Your task to perform on an android device: turn off picture-in-picture Image 0: 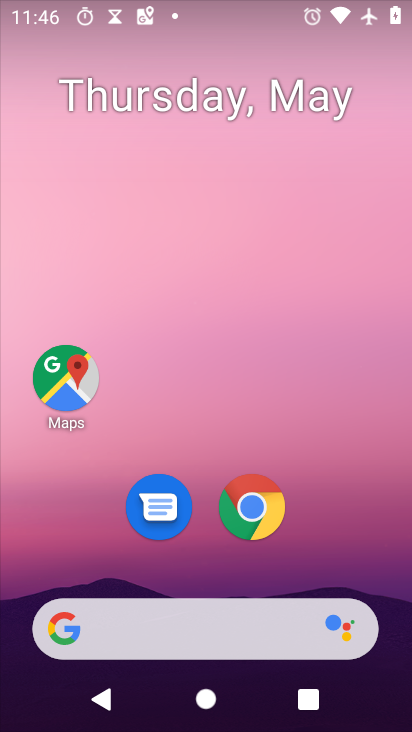
Step 0: drag from (350, 547) to (298, 12)
Your task to perform on an android device: turn off picture-in-picture Image 1: 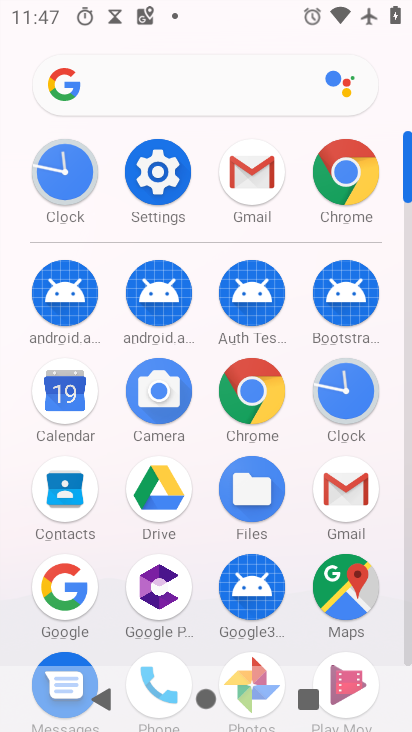
Step 1: drag from (19, 607) to (21, 263)
Your task to perform on an android device: turn off picture-in-picture Image 2: 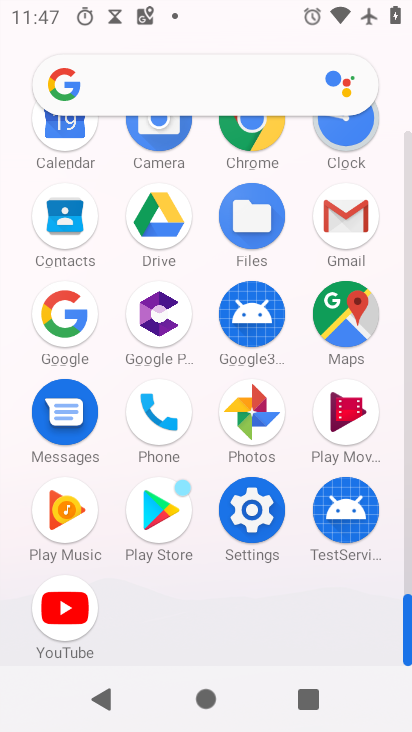
Step 2: click (252, 508)
Your task to perform on an android device: turn off picture-in-picture Image 3: 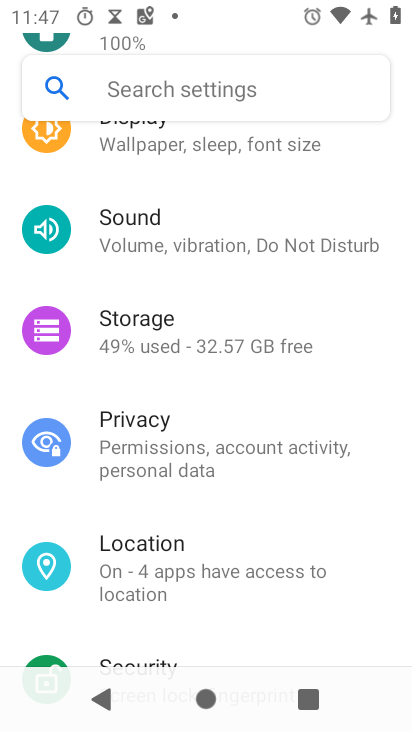
Step 3: drag from (251, 205) to (231, 635)
Your task to perform on an android device: turn off picture-in-picture Image 4: 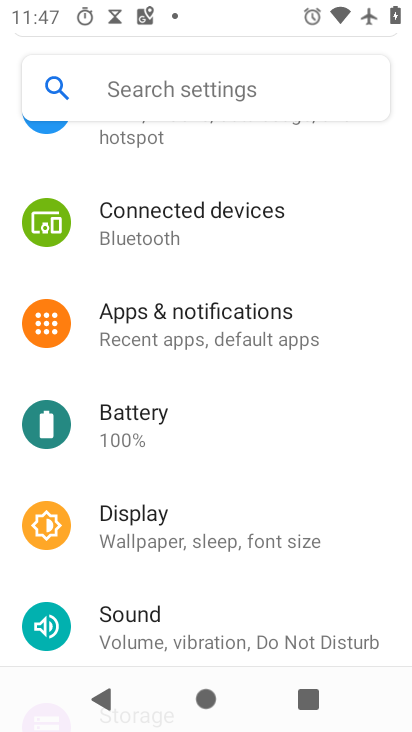
Step 4: click (213, 307)
Your task to perform on an android device: turn off picture-in-picture Image 5: 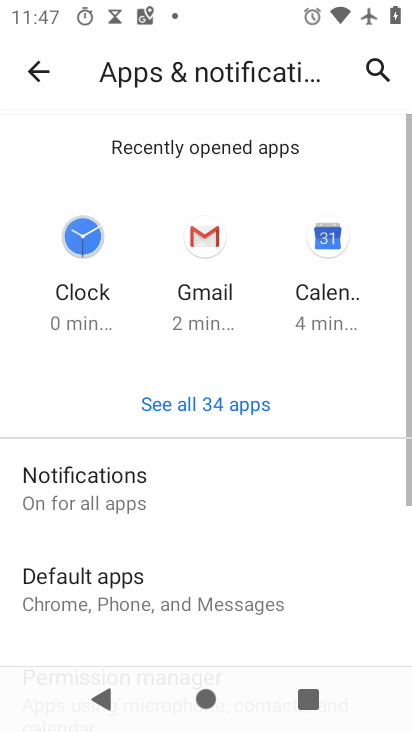
Step 5: click (169, 476)
Your task to perform on an android device: turn off picture-in-picture Image 6: 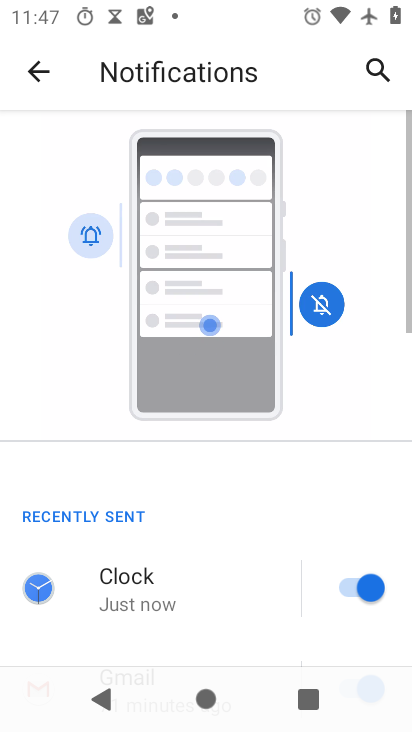
Step 6: drag from (169, 554) to (218, 139)
Your task to perform on an android device: turn off picture-in-picture Image 7: 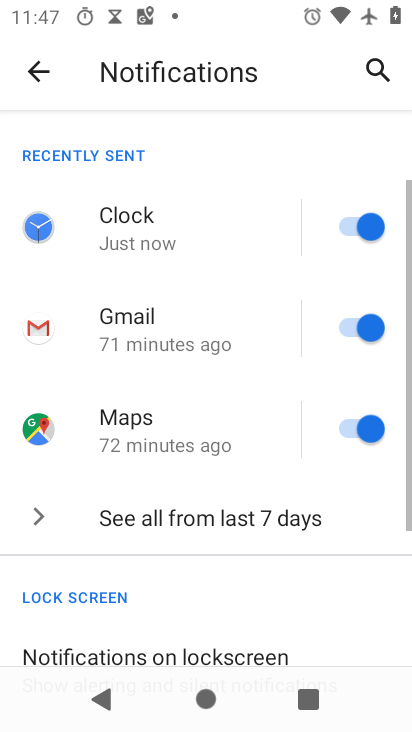
Step 7: drag from (171, 551) to (214, 115)
Your task to perform on an android device: turn off picture-in-picture Image 8: 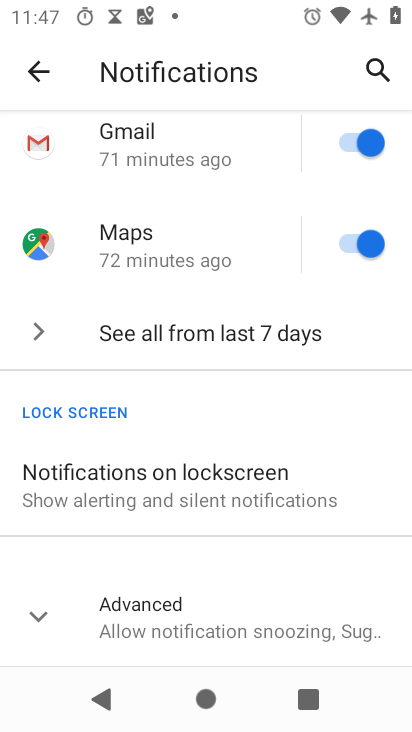
Step 8: click (49, 595)
Your task to perform on an android device: turn off picture-in-picture Image 9: 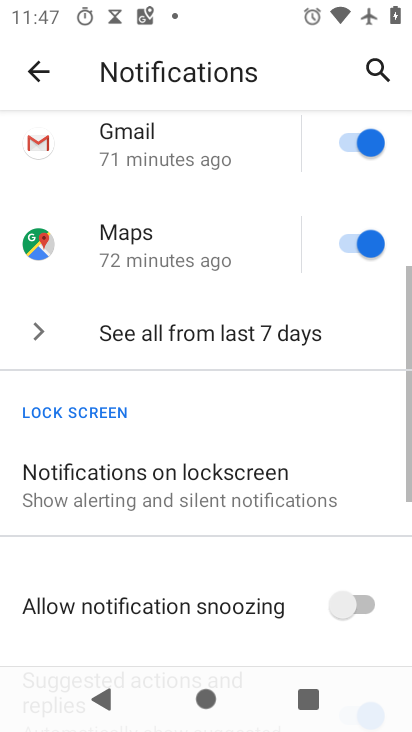
Step 9: drag from (199, 606) to (237, 87)
Your task to perform on an android device: turn off picture-in-picture Image 10: 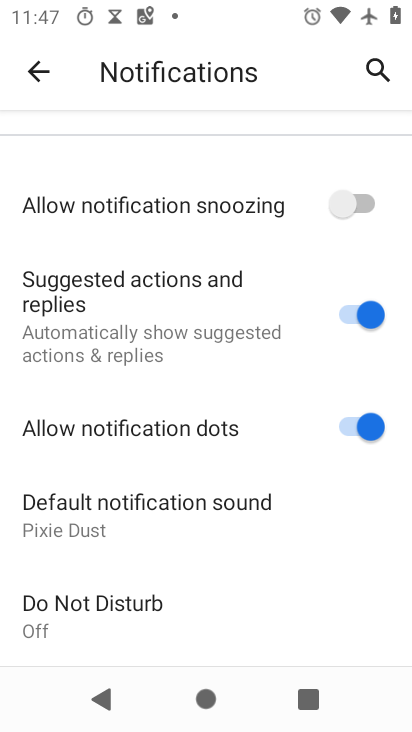
Step 10: click (35, 62)
Your task to perform on an android device: turn off picture-in-picture Image 11: 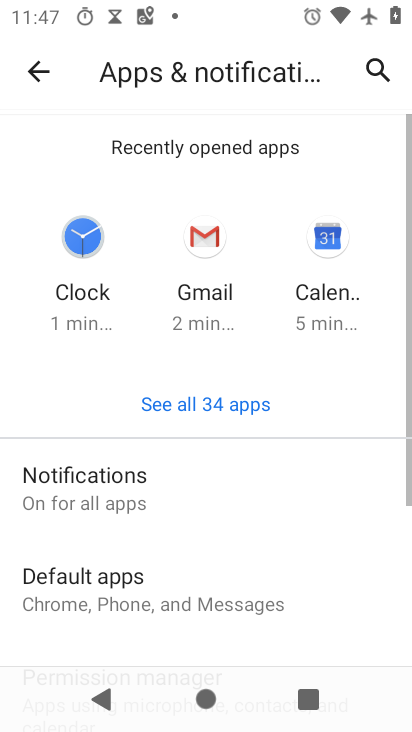
Step 11: drag from (202, 557) to (242, 142)
Your task to perform on an android device: turn off picture-in-picture Image 12: 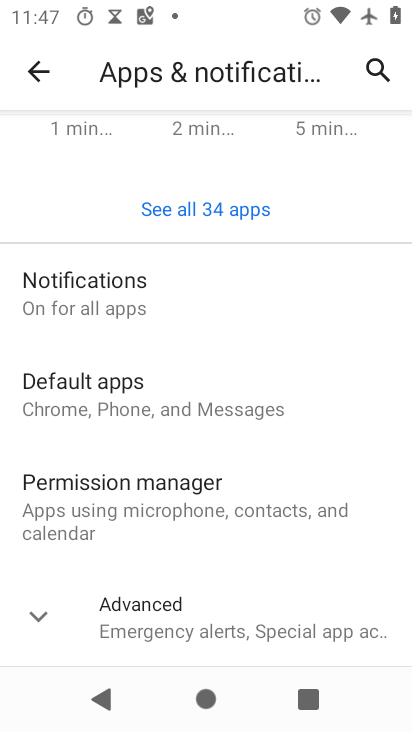
Step 12: click (162, 623)
Your task to perform on an android device: turn off picture-in-picture Image 13: 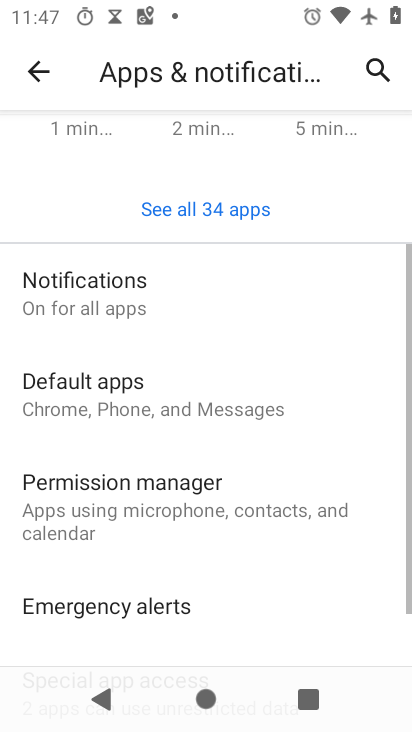
Step 13: drag from (238, 569) to (237, 202)
Your task to perform on an android device: turn off picture-in-picture Image 14: 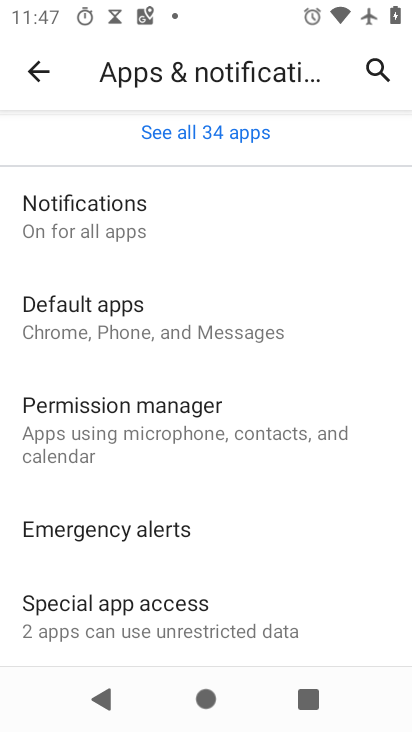
Step 14: click (126, 607)
Your task to perform on an android device: turn off picture-in-picture Image 15: 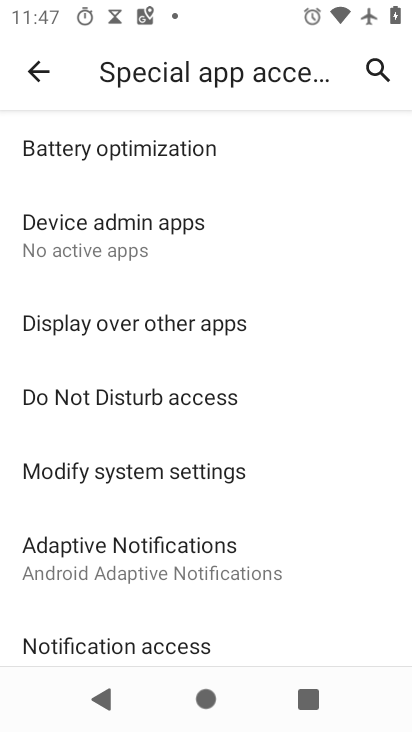
Step 15: drag from (188, 571) to (246, 190)
Your task to perform on an android device: turn off picture-in-picture Image 16: 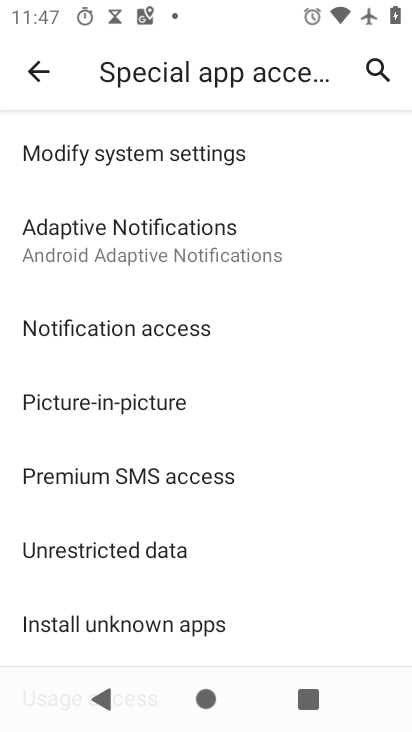
Step 16: click (149, 411)
Your task to perform on an android device: turn off picture-in-picture Image 17: 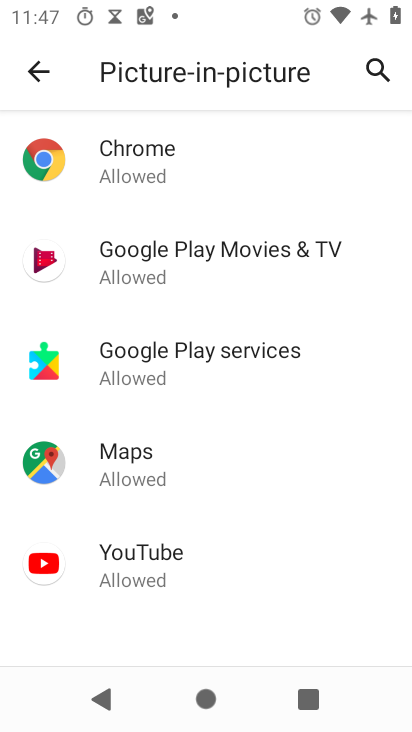
Step 17: click (178, 181)
Your task to perform on an android device: turn off picture-in-picture Image 18: 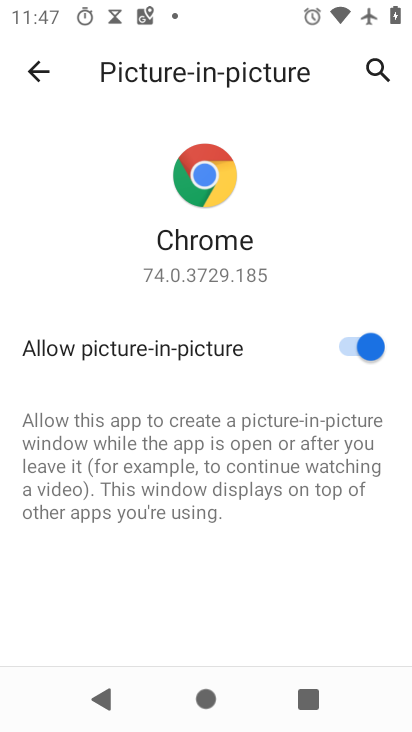
Step 18: click (356, 330)
Your task to perform on an android device: turn off picture-in-picture Image 19: 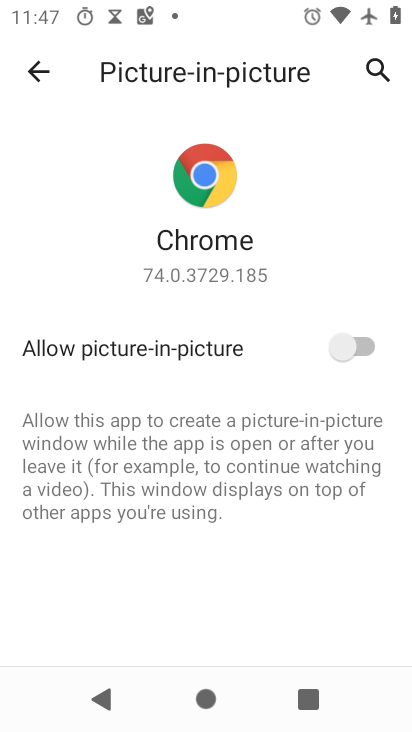
Step 19: click (37, 67)
Your task to perform on an android device: turn off picture-in-picture Image 20: 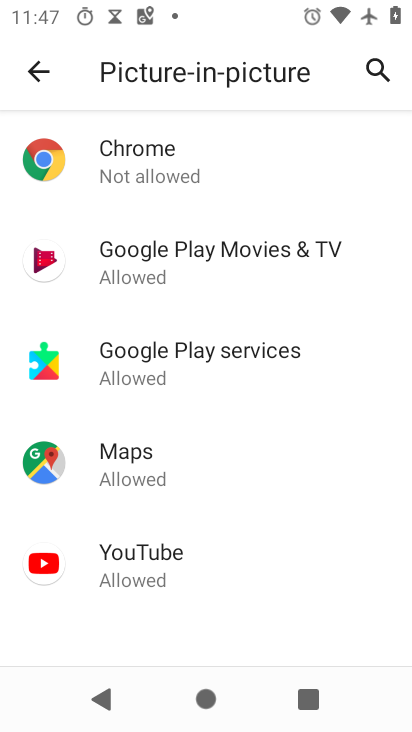
Step 20: click (147, 261)
Your task to perform on an android device: turn off picture-in-picture Image 21: 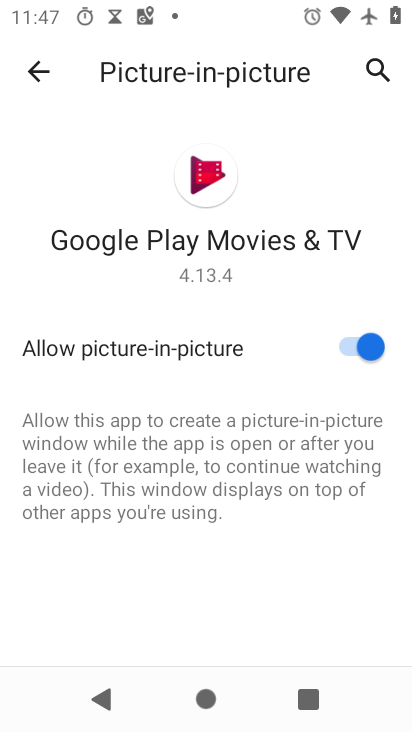
Step 21: click (328, 336)
Your task to perform on an android device: turn off picture-in-picture Image 22: 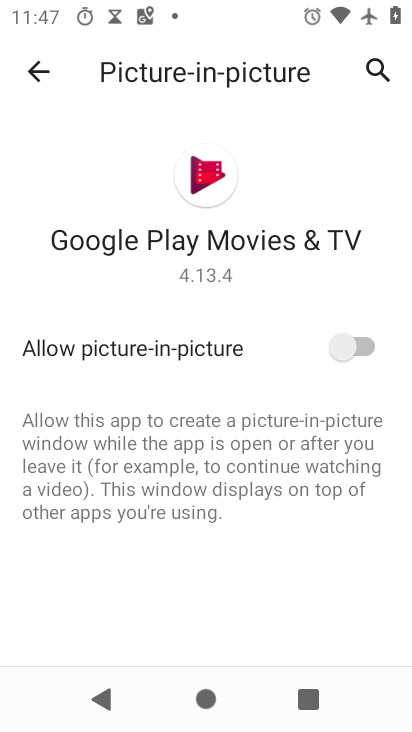
Step 22: click (38, 64)
Your task to perform on an android device: turn off picture-in-picture Image 23: 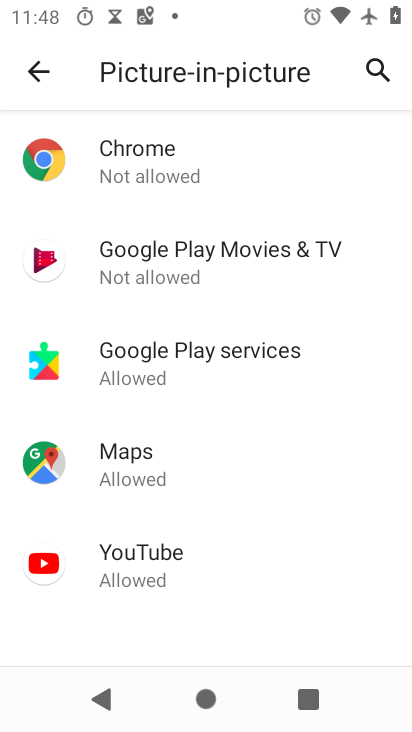
Step 23: click (132, 361)
Your task to perform on an android device: turn off picture-in-picture Image 24: 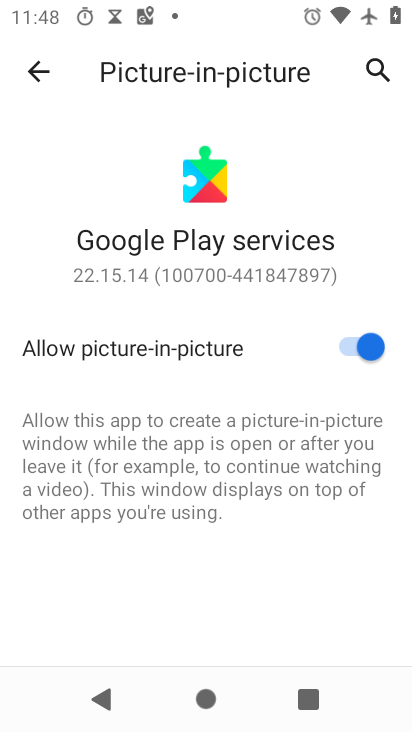
Step 24: click (354, 338)
Your task to perform on an android device: turn off picture-in-picture Image 25: 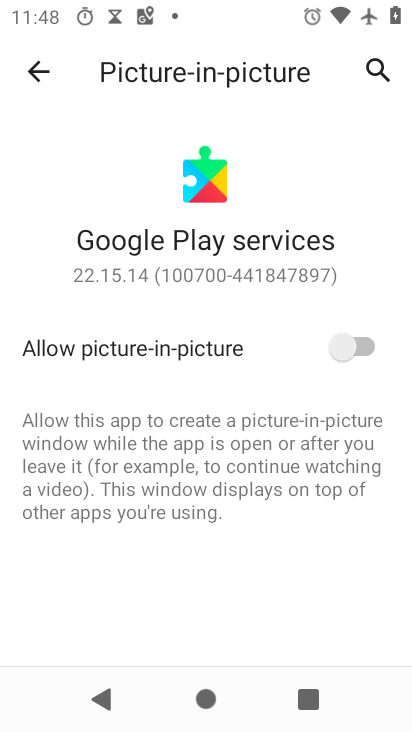
Step 25: click (39, 62)
Your task to perform on an android device: turn off picture-in-picture Image 26: 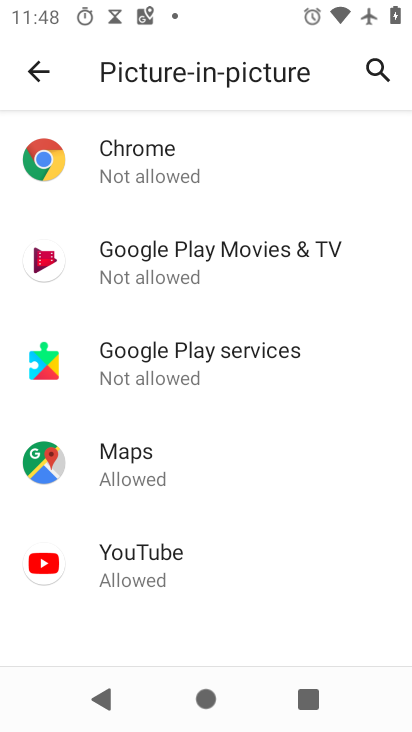
Step 26: click (133, 465)
Your task to perform on an android device: turn off picture-in-picture Image 27: 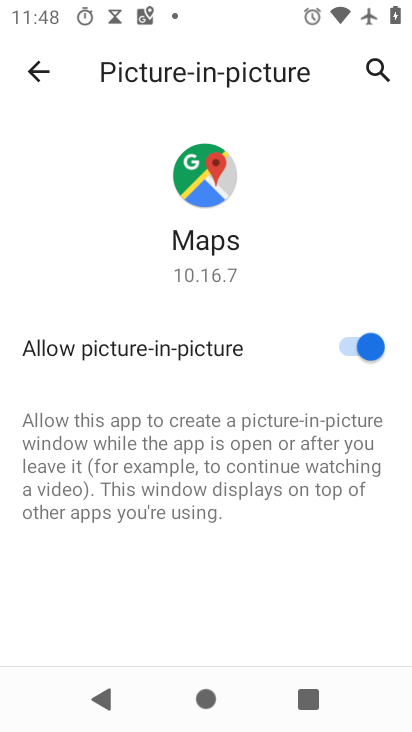
Step 27: click (333, 357)
Your task to perform on an android device: turn off picture-in-picture Image 28: 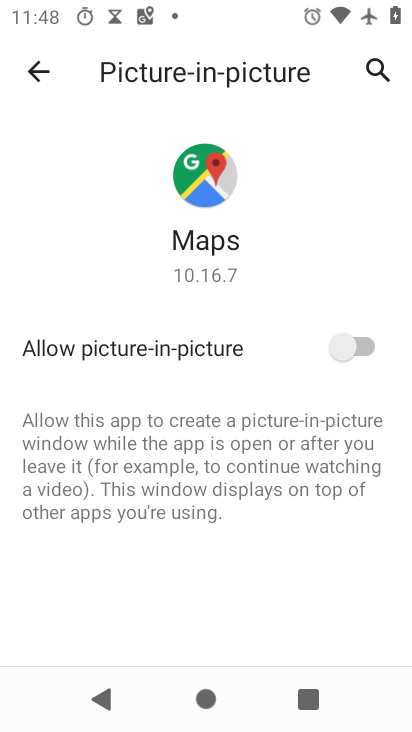
Step 28: click (38, 76)
Your task to perform on an android device: turn off picture-in-picture Image 29: 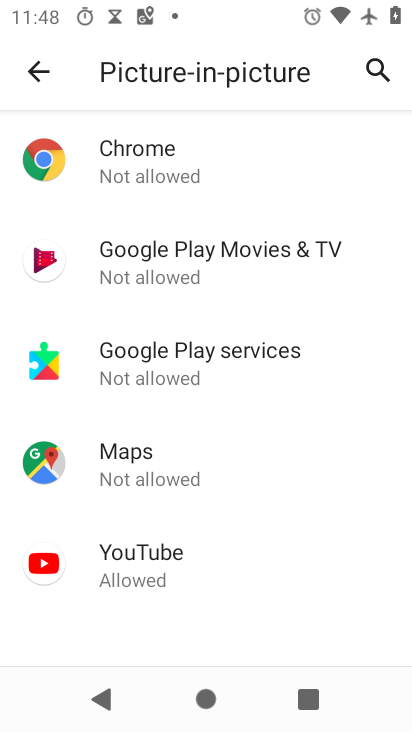
Step 29: click (134, 467)
Your task to perform on an android device: turn off picture-in-picture Image 30: 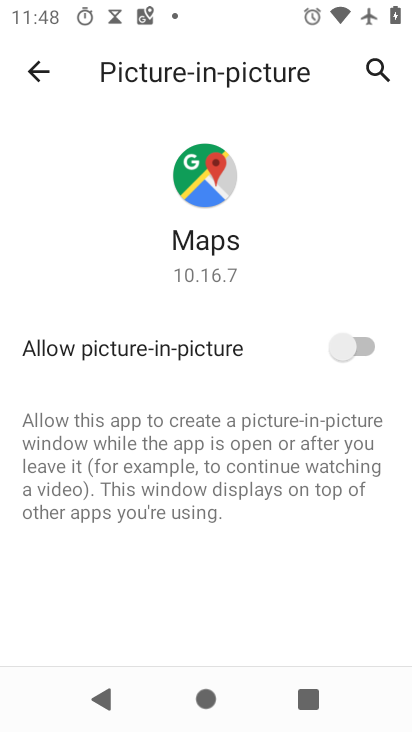
Step 30: click (29, 58)
Your task to perform on an android device: turn off picture-in-picture Image 31: 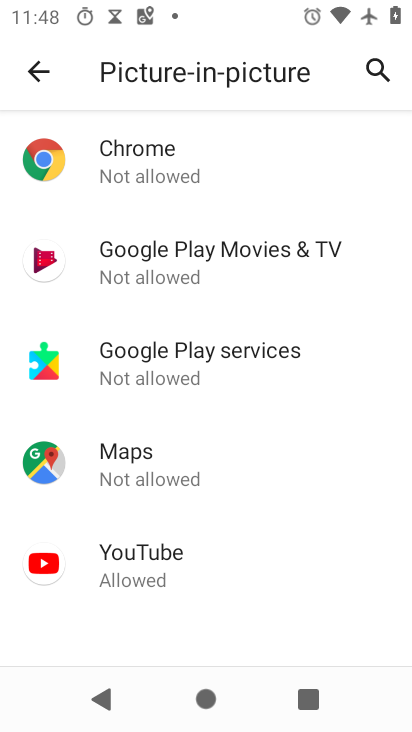
Step 31: click (113, 553)
Your task to perform on an android device: turn off picture-in-picture Image 32: 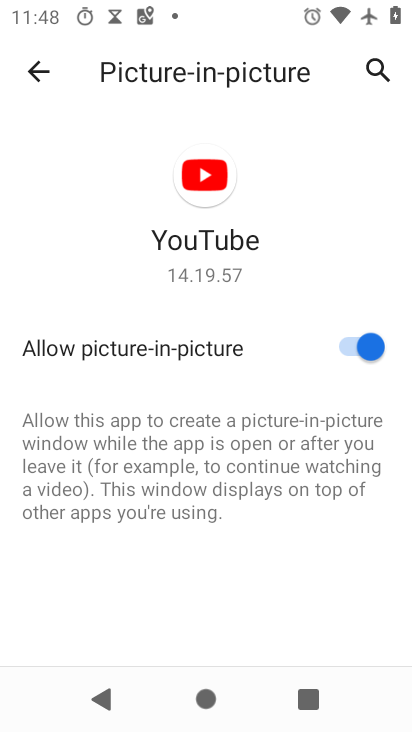
Step 32: click (346, 340)
Your task to perform on an android device: turn off picture-in-picture Image 33: 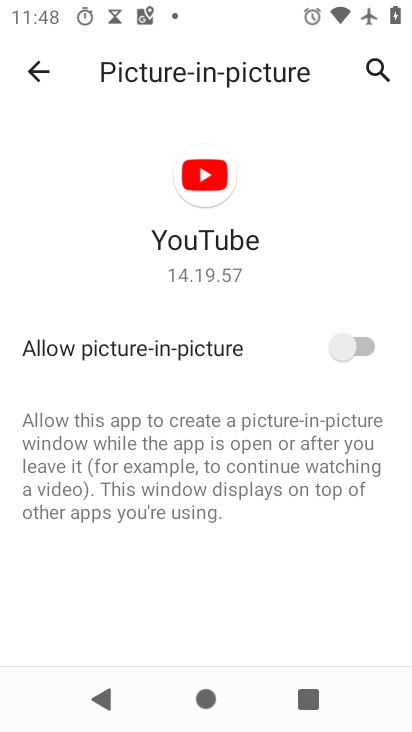
Step 33: click (35, 64)
Your task to perform on an android device: turn off picture-in-picture Image 34: 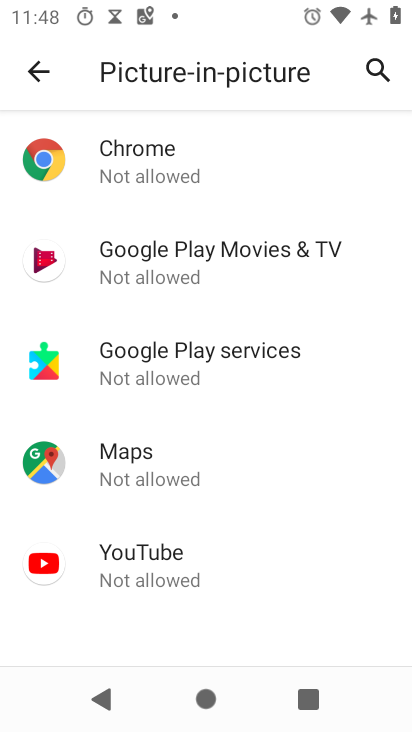
Step 34: task complete